Your task to perform on an android device: create a new album in the google photos Image 0: 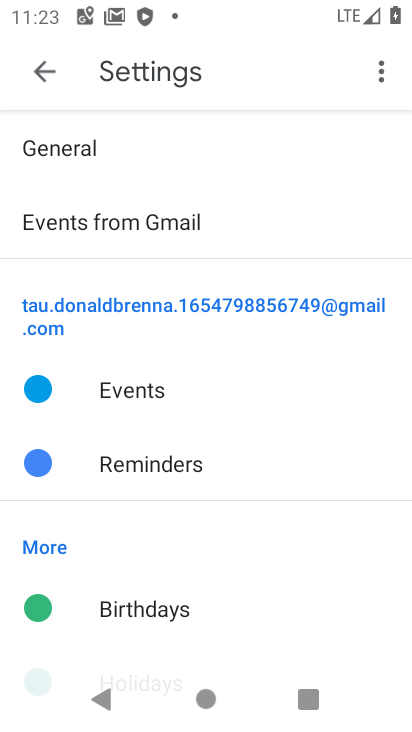
Step 0: press home button
Your task to perform on an android device: create a new album in the google photos Image 1: 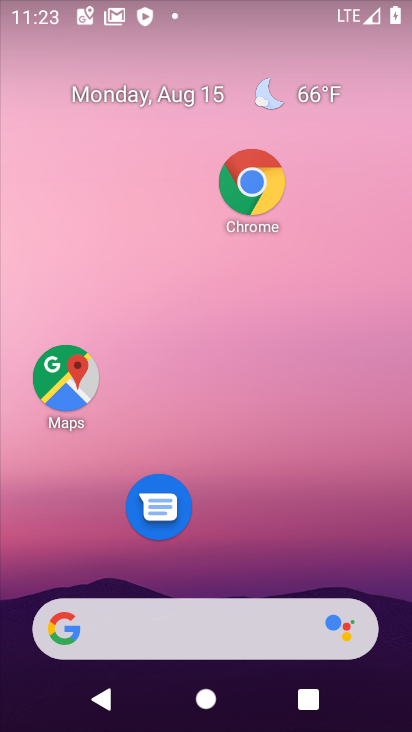
Step 1: drag from (252, 599) to (195, 4)
Your task to perform on an android device: create a new album in the google photos Image 2: 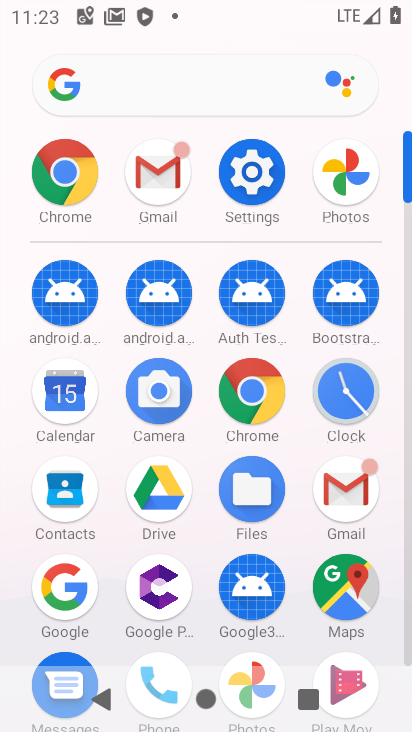
Step 2: click (357, 184)
Your task to perform on an android device: create a new album in the google photos Image 3: 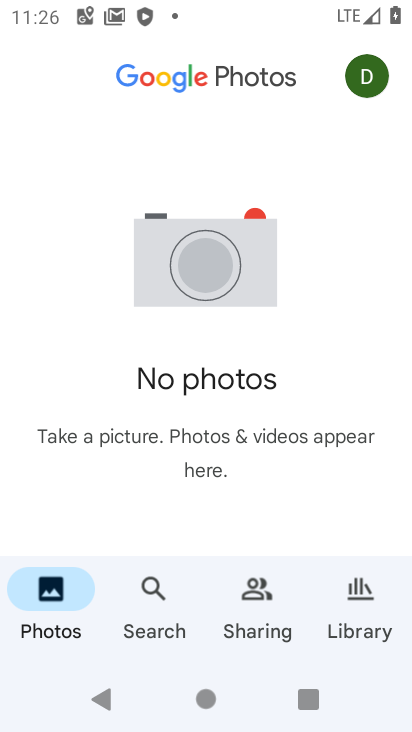
Step 3: task complete